Your task to perform on an android device: open chrome and create a bookmark for the current page Image 0: 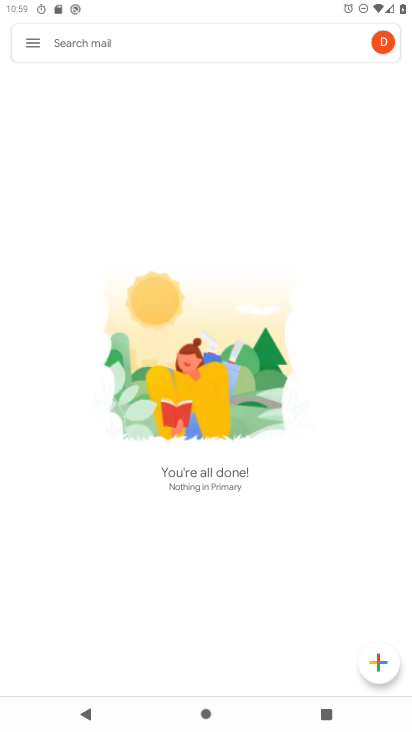
Step 0: press home button
Your task to perform on an android device: open chrome and create a bookmark for the current page Image 1: 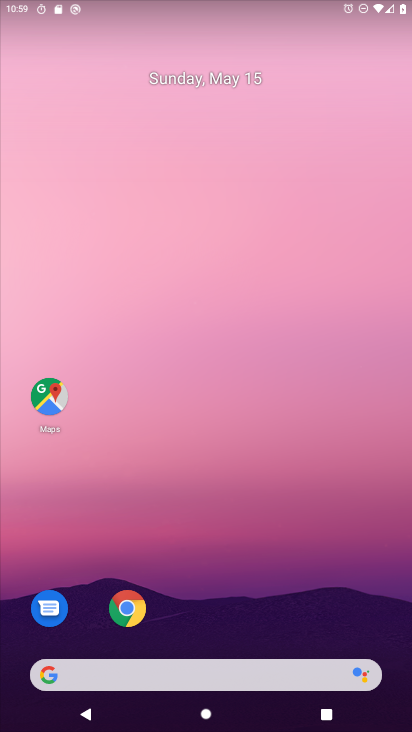
Step 1: drag from (316, 604) to (312, 164)
Your task to perform on an android device: open chrome and create a bookmark for the current page Image 2: 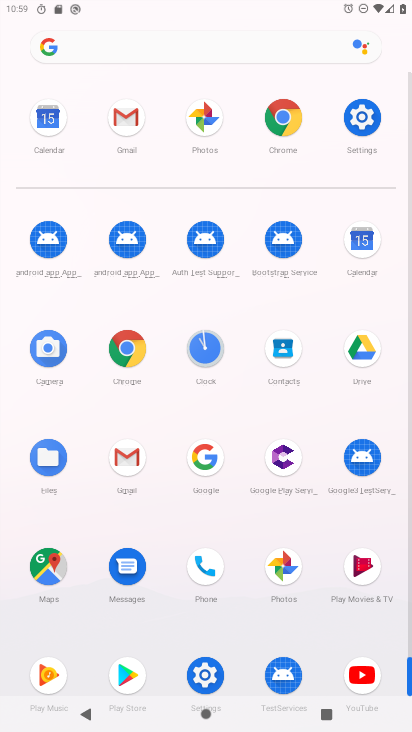
Step 2: click (275, 125)
Your task to perform on an android device: open chrome and create a bookmark for the current page Image 3: 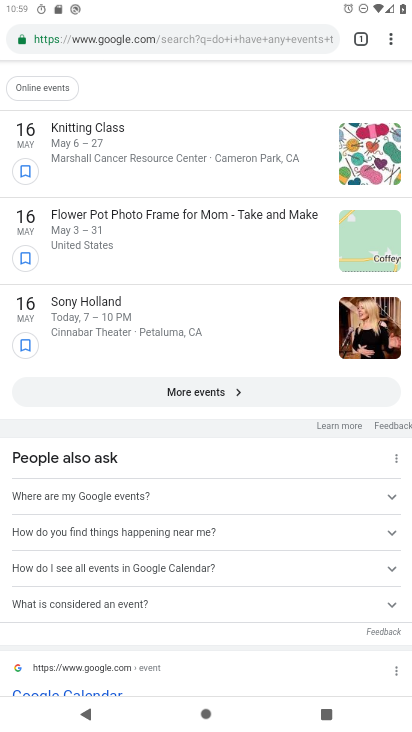
Step 3: drag from (395, 42) to (42, 439)
Your task to perform on an android device: open chrome and create a bookmark for the current page Image 4: 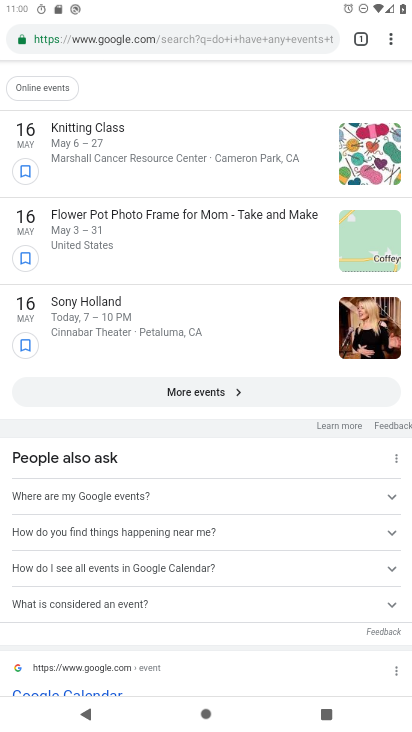
Step 4: drag from (387, 47) to (272, 42)
Your task to perform on an android device: open chrome and create a bookmark for the current page Image 5: 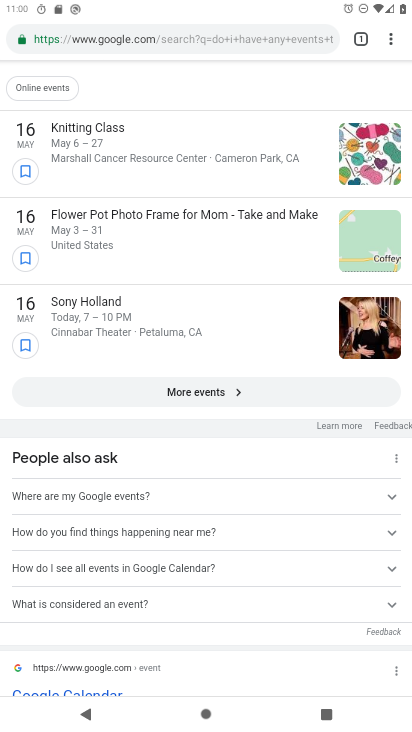
Step 5: click (396, 38)
Your task to perform on an android device: open chrome and create a bookmark for the current page Image 6: 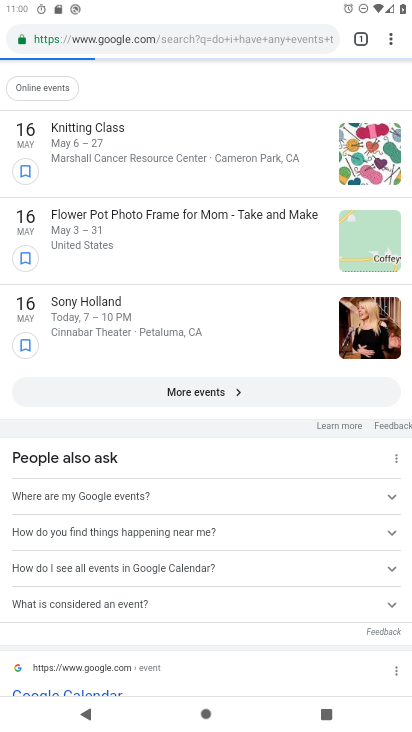
Step 6: task complete